Your task to perform on an android device: change keyboard looks Image 0: 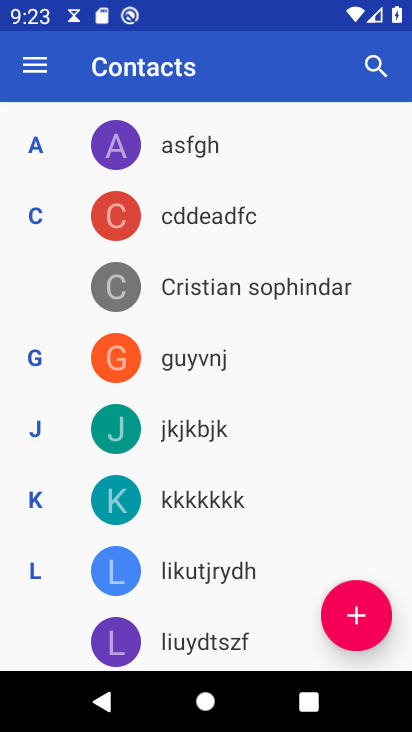
Step 0: press home button
Your task to perform on an android device: change keyboard looks Image 1: 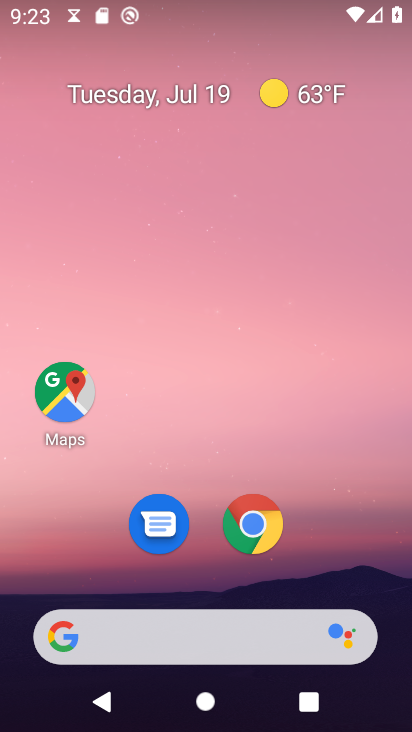
Step 1: drag from (192, 463) to (238, 21)
Your task to perform on an android device: change keyboard looks Image 2: 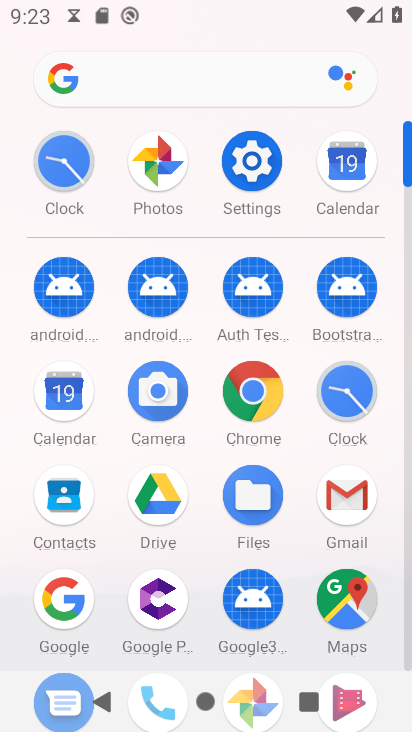
Step 2: drag from (206, 585) to (279, 113)
Your task to perform on an android device: change keyboard looks Image 3: 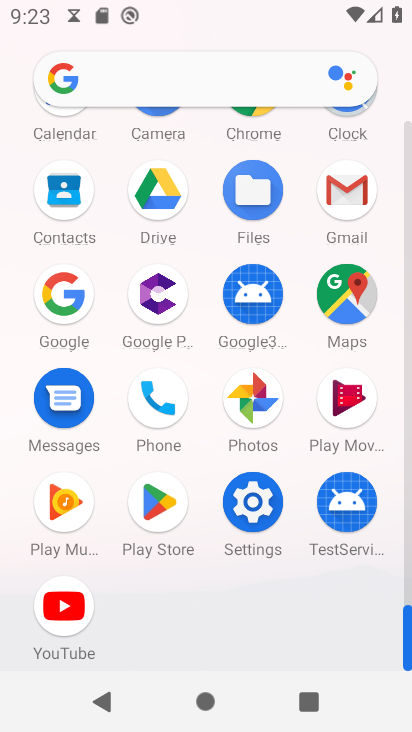
Step 3: click (247, 514)
Your task to perform on an android device: change keyboard looks Image 4: 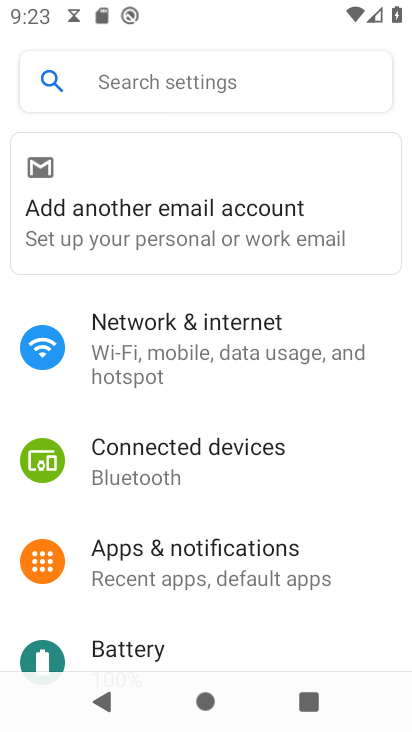
Step 4: drag from (245, 629) to (317, 83)
Your task to perform on an android device: change keyboard looks Image 5: 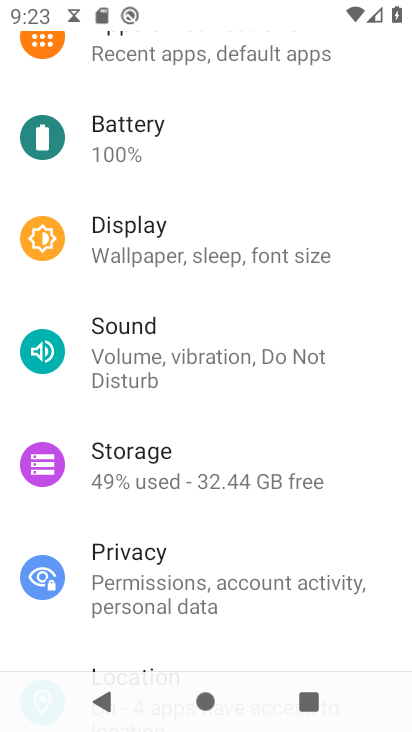
Step 5: drag from (234, 528) to (287, 34)
Your task to perform on an android device: change keyboard looks Image 6: 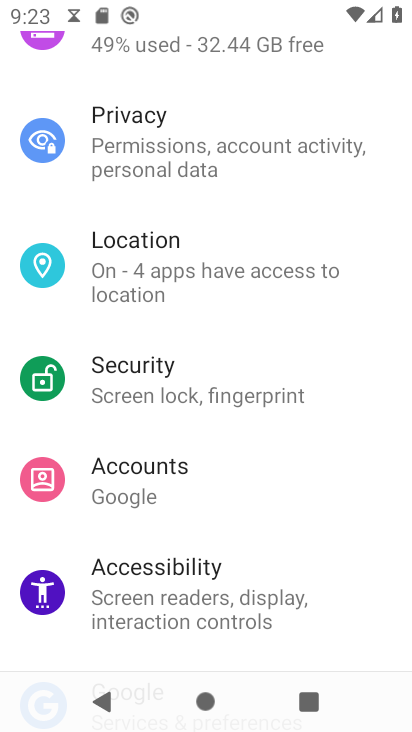
Step 6: drag from (265, 476) to (289, 105)
Your task to perform on an android device: change keyboard looks Image 7: 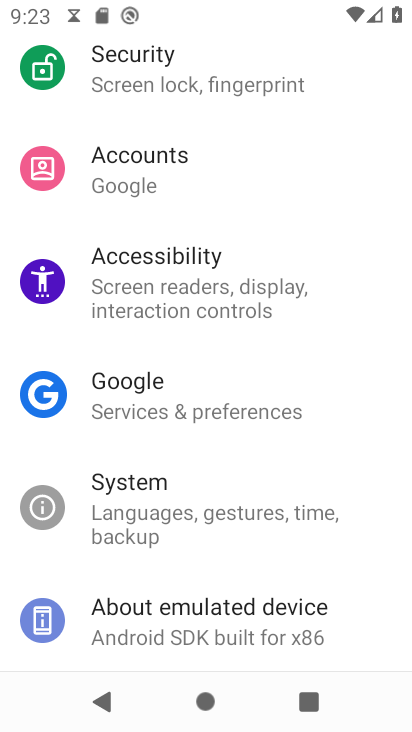
Step 7: click (141, 517)
Your task to perform on an android device: change keyboard looks Image 8: 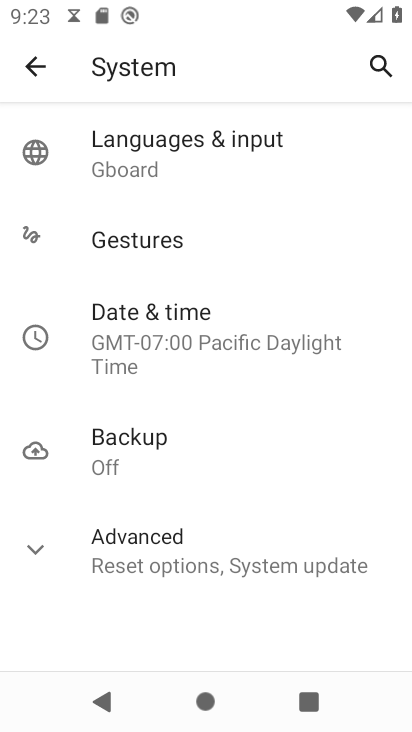
Step 8: click (182, 158)
Your task to perform on an android device: change keyboard looks Image 9: 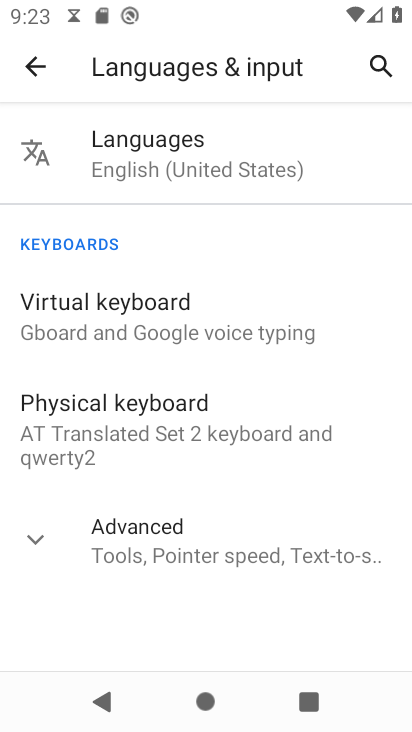
Step 9: click (166, 322)
Your task to perform on an android device: change keyboard looks Image 10: 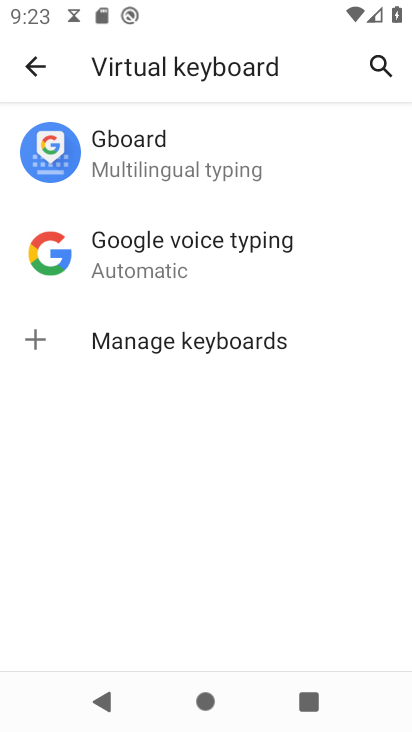
Step 10: click (156, 159)
Your task to perform on an android device: change keyboard looks Image 11: 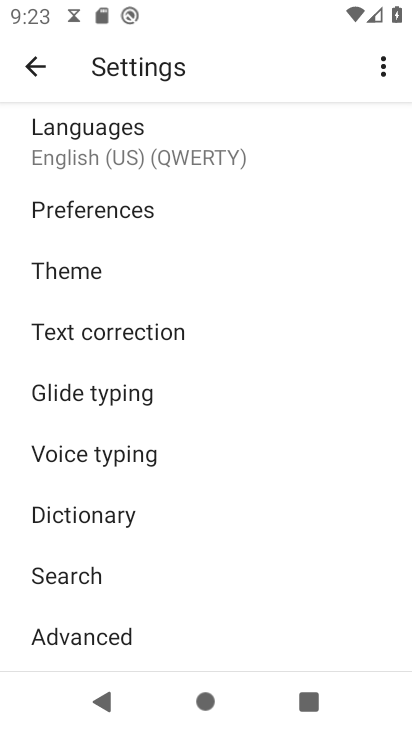
Step 11: click (88, 281)
Your task to perform on an android device: change keyboard looks Image 12: 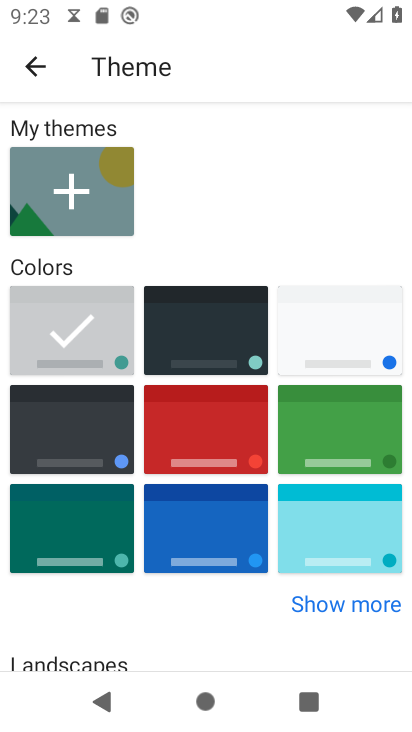
Step 12: click (211, 514)
Your task to perform on an android device: change keyboard looks Image 13: 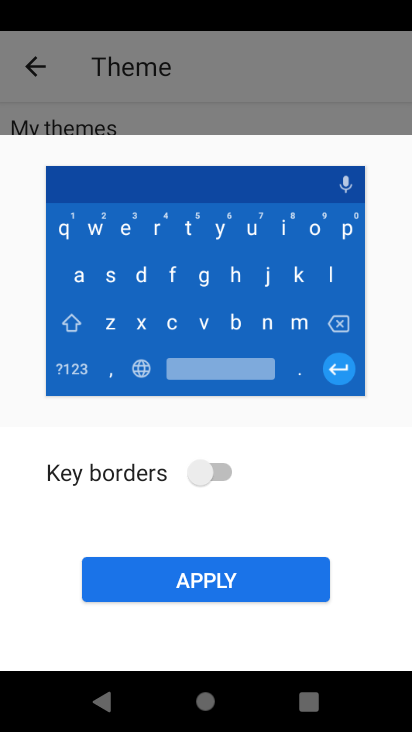
Step 13: click (234, 585)
Your task to perform on an android device: change keyboard looks Image 14: 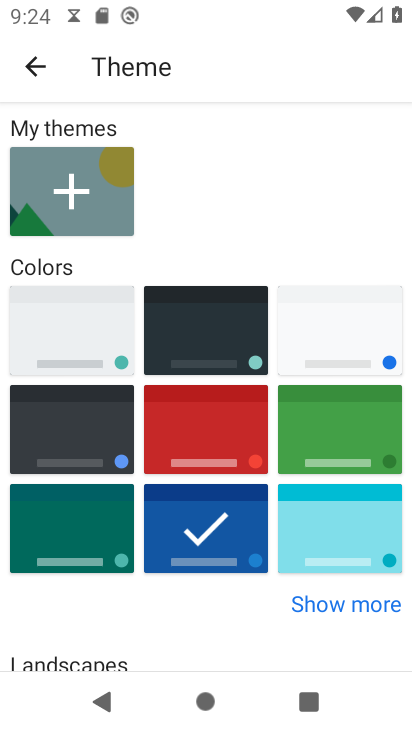
Step 14: task complete